Your task to perform on an android device: change notification settings in the gmail app Image 0: 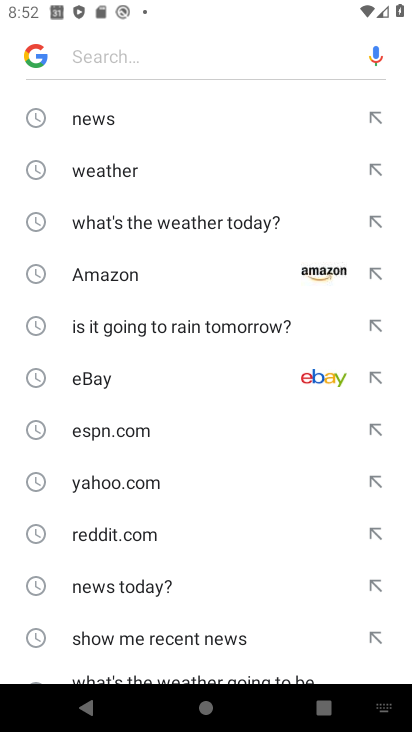
Step 0: press home button
Your task to perform on an android device: change notification settings in the gmail app Image 1: 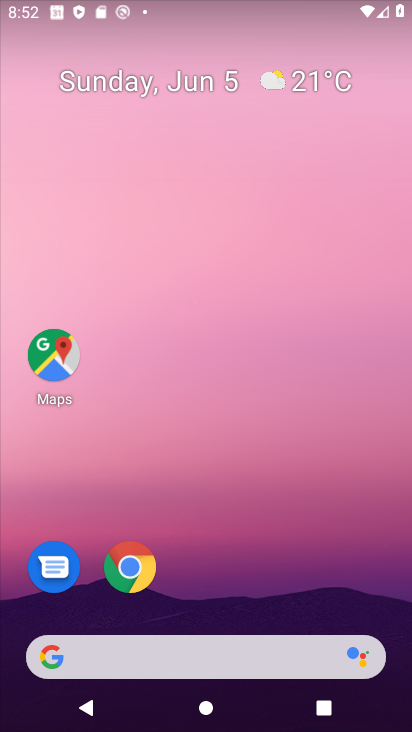
Step 1: drag from (205, 638) to (217, 323)
Your task to perform on an android device: change notification settings in the gmail app Image 2: 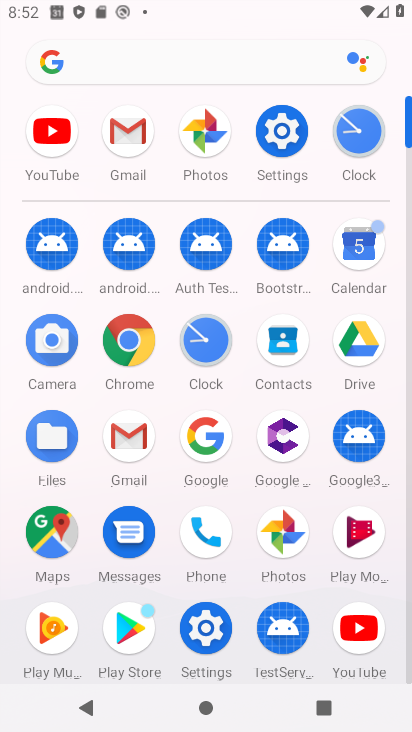
Step 2: click (136, 434)
Your task to perform on an android device: change notification settings in the gmail app Image 3: 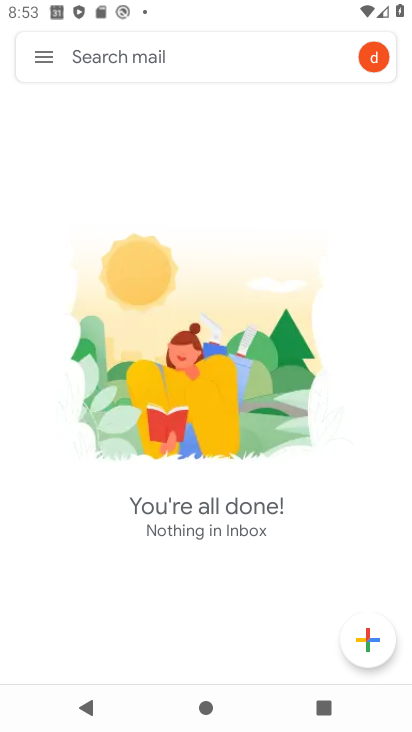
Step 3: click (49, 67)
Your task to perform on an android device: change notification settings in the gmail app Image 4: 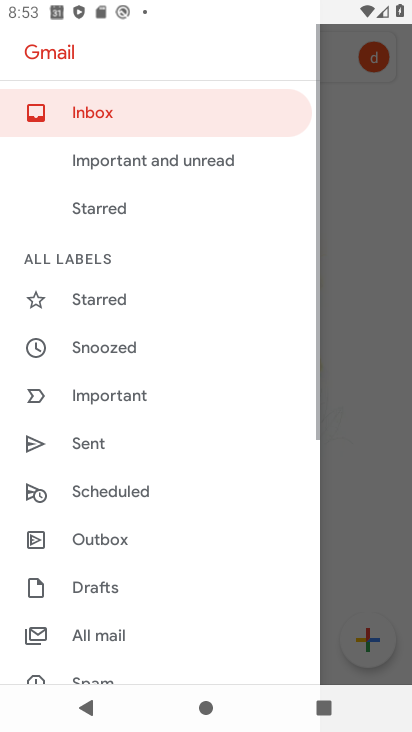
Step 4: drag from (108, 648) to (150, 346)
Your task to perform on an android device: change notification settings in the gmail app Image 5: 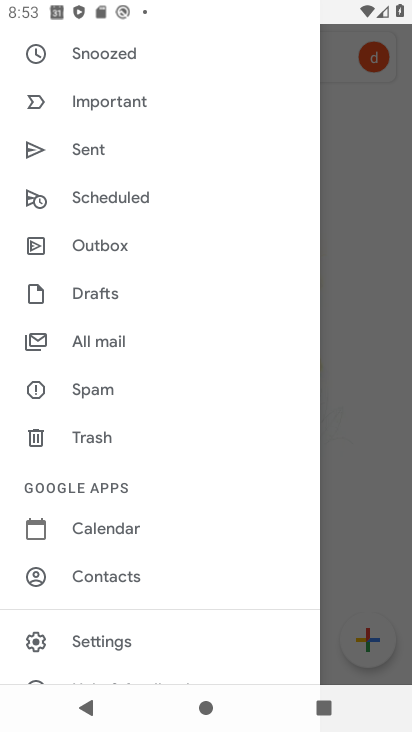
Step 5: click (123, 643)
Your task to perform on an android device: change notification settings in the gmail app Image 6: 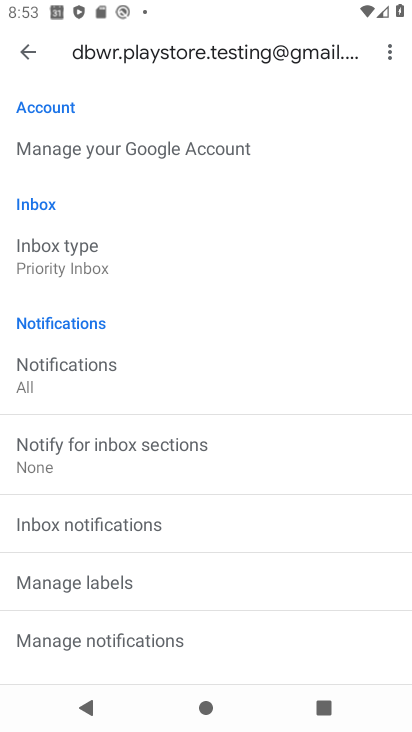
Step 6: click (35, 63)
Your task to perform on an android device: change notification settings in the gmail app Image 7: 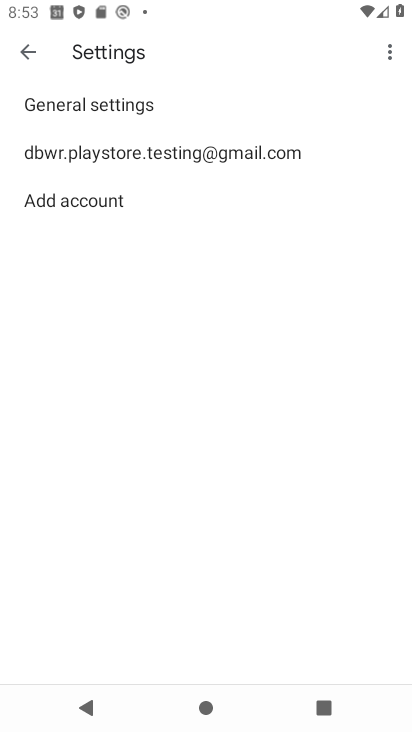
Step 7: click (88, 158)
Your task to perform on an android device: change notification settings in the gmail app Image 8: 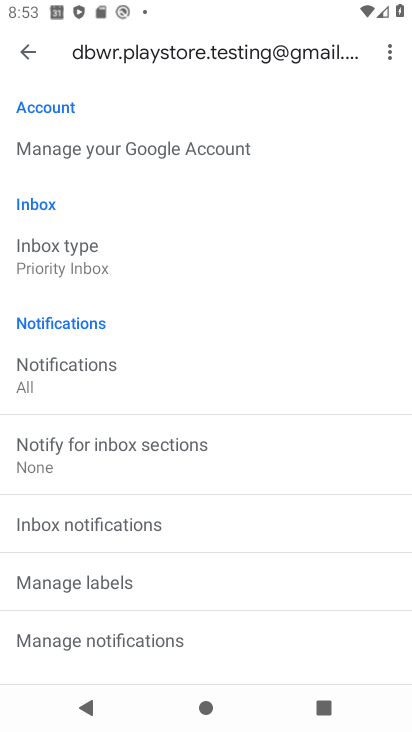
Step 8: click (73, 372)
Your task to perform on an android device: change notification settings in the gmail app Image 9: 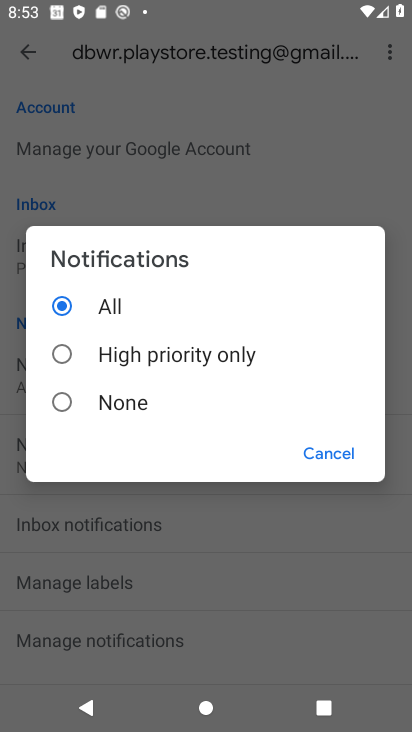
Step 9: click (116, 405)
Your task to perform on an android device: change notification settings in the gmail app Image 10: 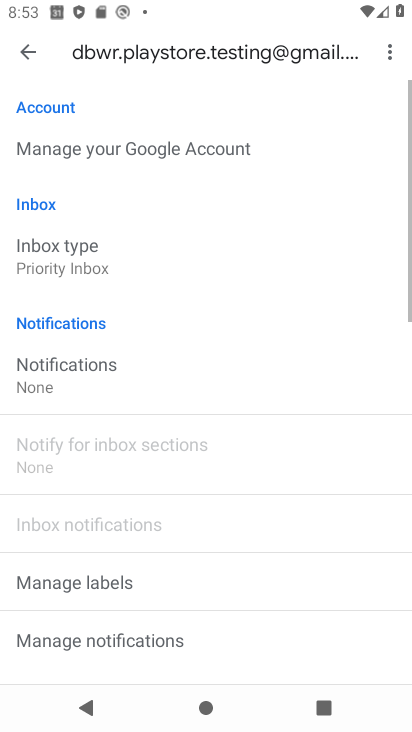
Step 10: task complete